Your task to perform on an android device: Open Google Image 0: 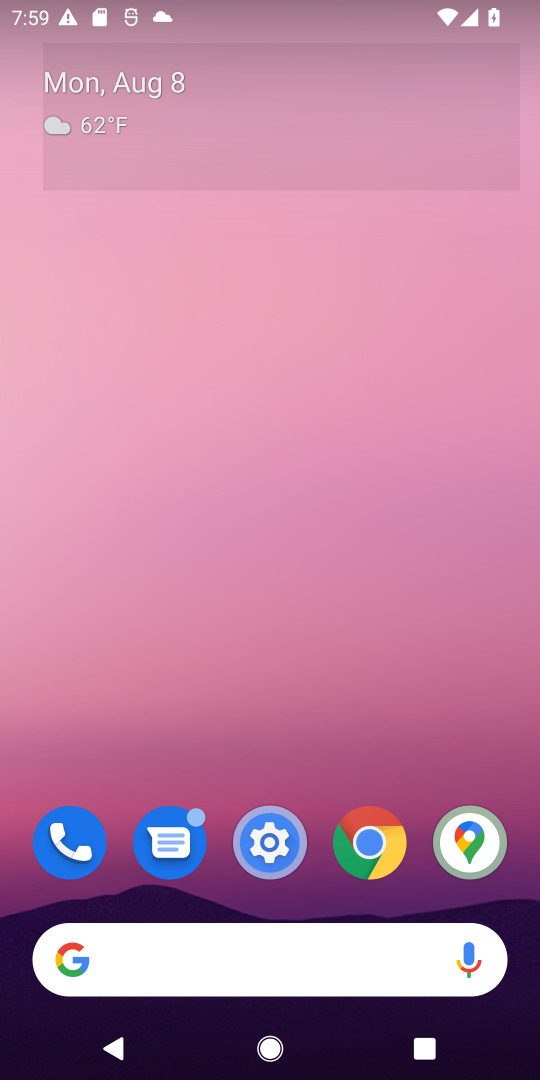
Step 0: click (229, 966)
Your task to perform on an android device: Open Google Image 1: 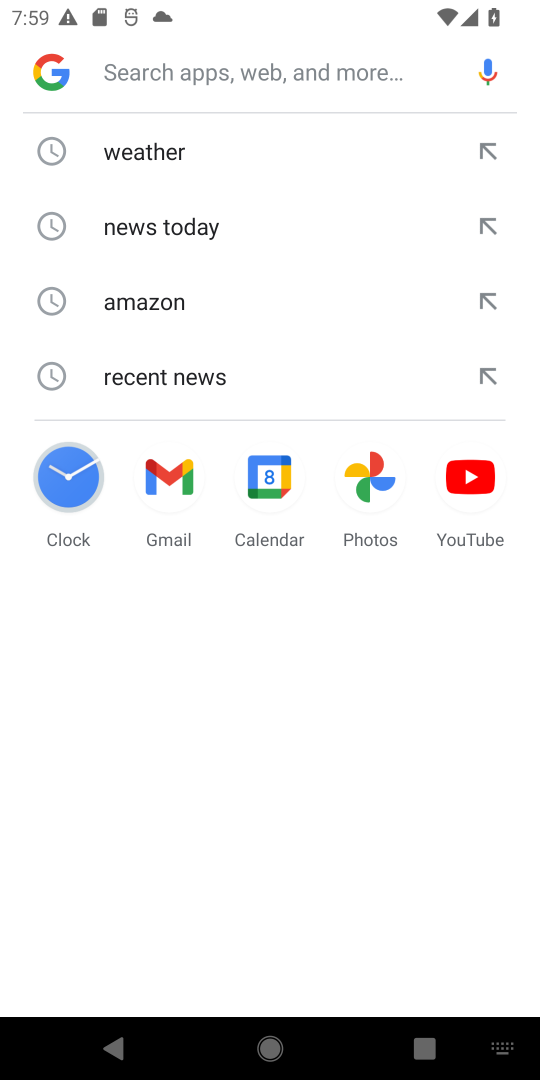
Step 1: click (51, 83)
Your task to perform on an android device: Open Google Image 2: 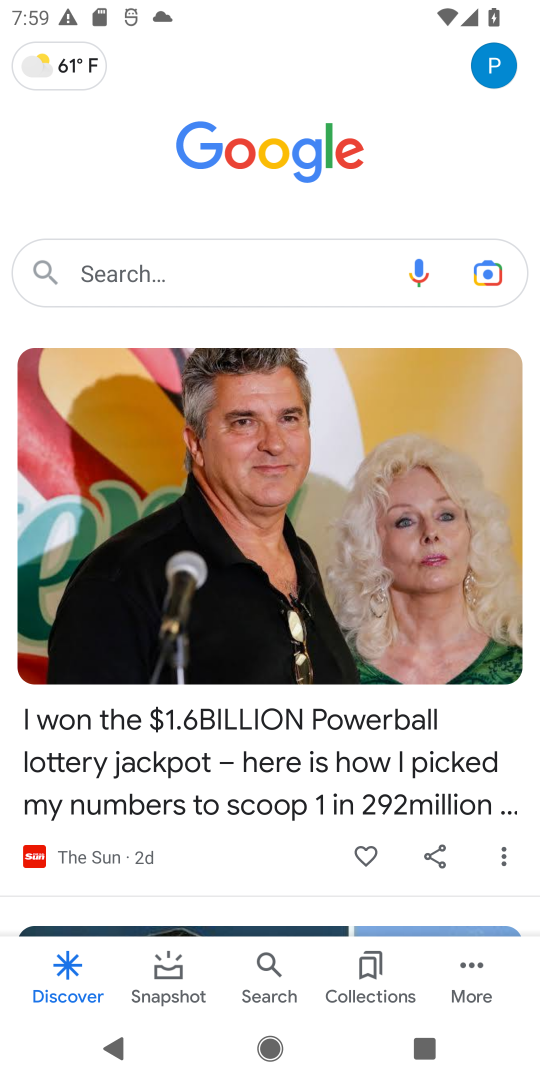
Step 2: task complete